Your task to perform on an android device: open app "Google News" (install if not already installed) Image 0: 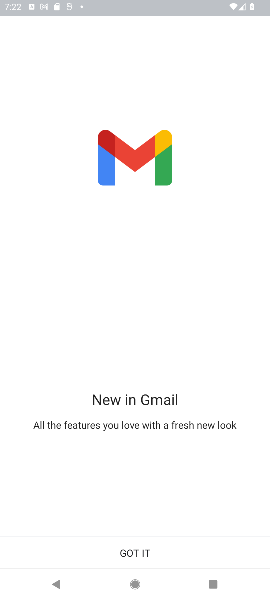
Step 0: press home button
Your task to perform on an android device: open app "Google News" (install if not already installed) Image 1: 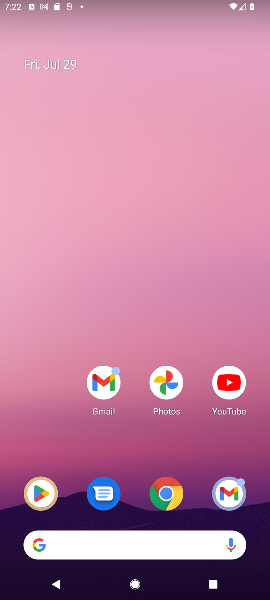
Step 1: click (44, 493)
Your task to perform on an android device: open app "Google News" (install if not already installed) Image 2: 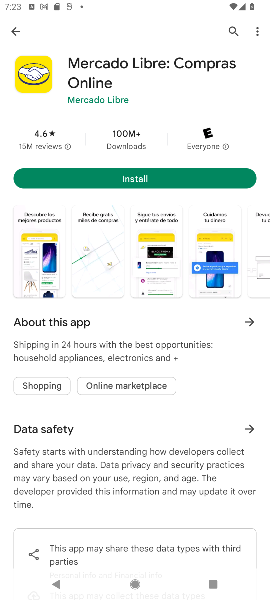
Step 2: click (234, 29)
Your task to perform on an android device: open app "Google News" (install if not already installed) Image 3: 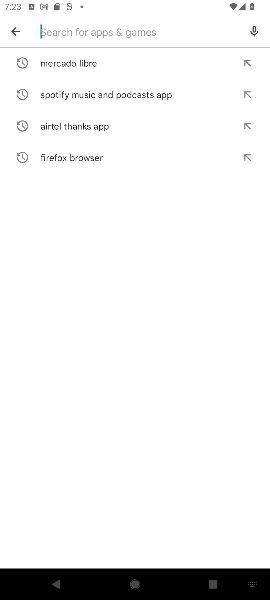
Step 3: type "Google News"
Your task to perform on an android device: open app "Google News" (install if not already installed) Image 4: 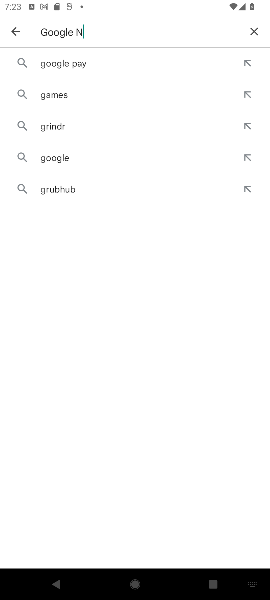
Step 4: type ""
Your task to perform on an android device: open app "Google News" (install if not already installed) Image 5: 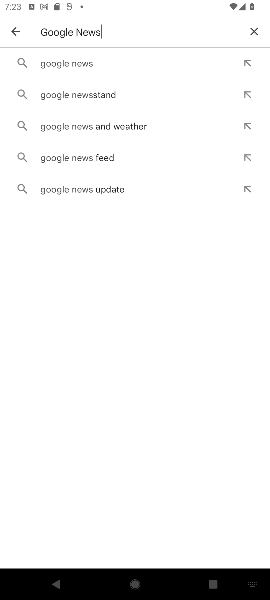
Step 5: click (68, 62)
Your task to perform on an android device: open app "Google News" (install if not already installed) Image 6: 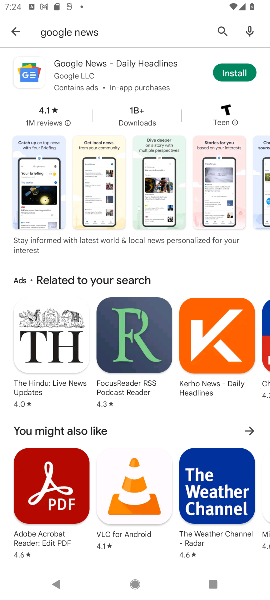
Step 6: click (233, 76)
Your task to perform on an android device: open app "Google News" (install if not already installed) Image 7: 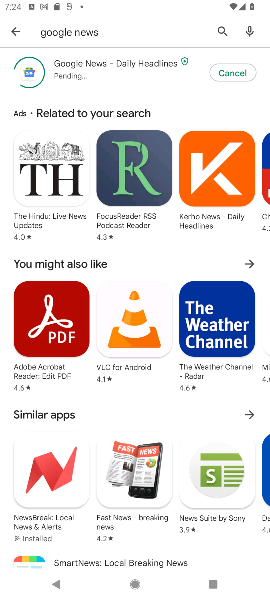
Step 7: click (133, 76)
Your task to perform on an android device: open app "Google News" (install if not already installed) Image 8: 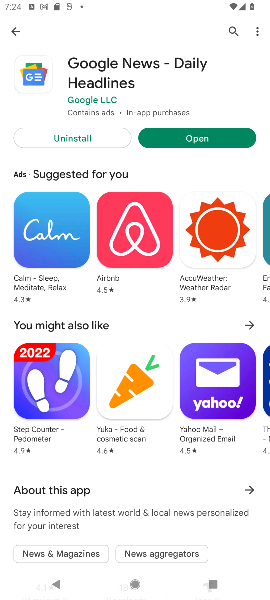
Step 8: task complete